Your task to perform on an android device: Open Youtube and go to "Your channel" Image 0: 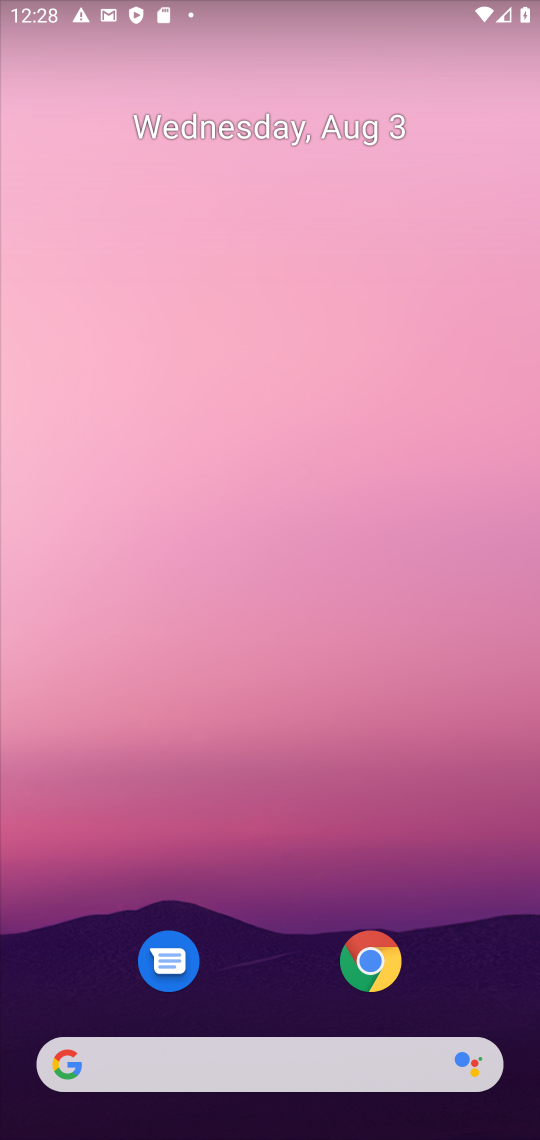
Step 0: drag from (302, 680) to (281, 84)
Your task to perform on an android device: Open Youtube and go to "Your channel" Image 1: 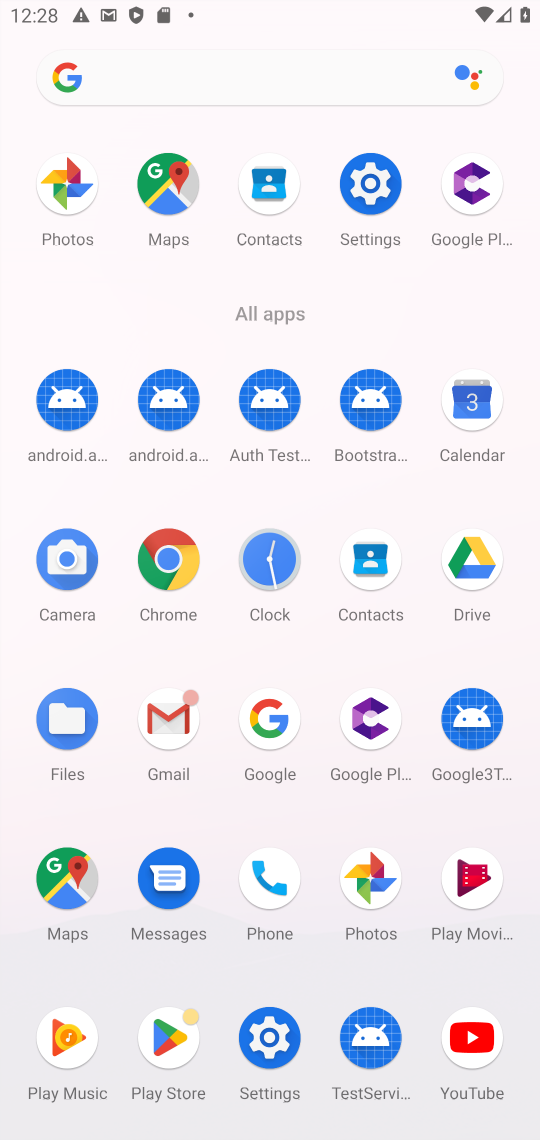
Step 1: click (472, 1037)
Your task to perform on an android device: Open Youtube and go to "Your channel" Image 2: 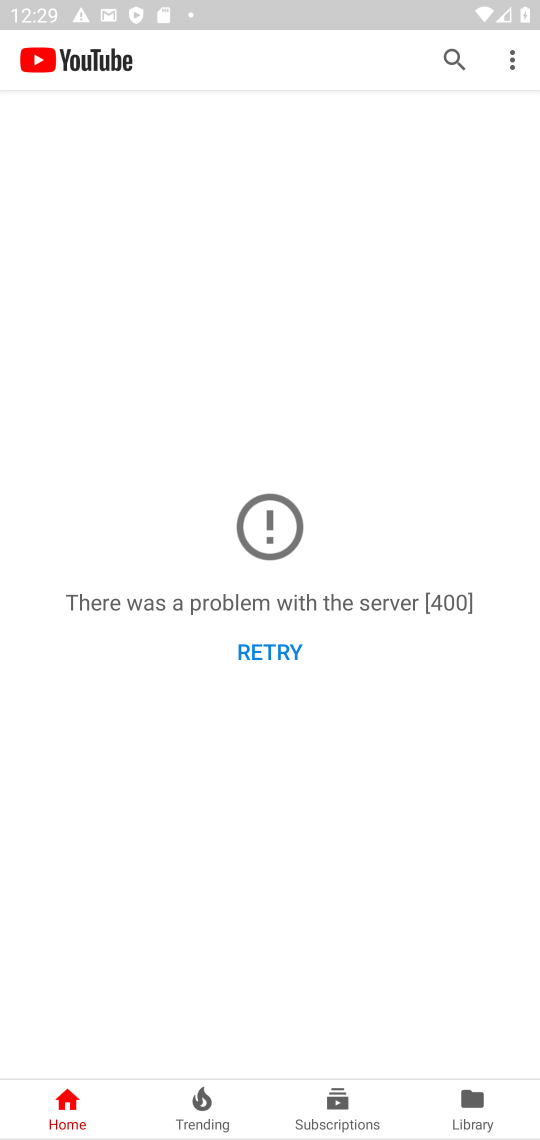
Step 2: click (241, 657)
Your task to perform on an android device: Open Youtube and go to "Your channel" Image 3: 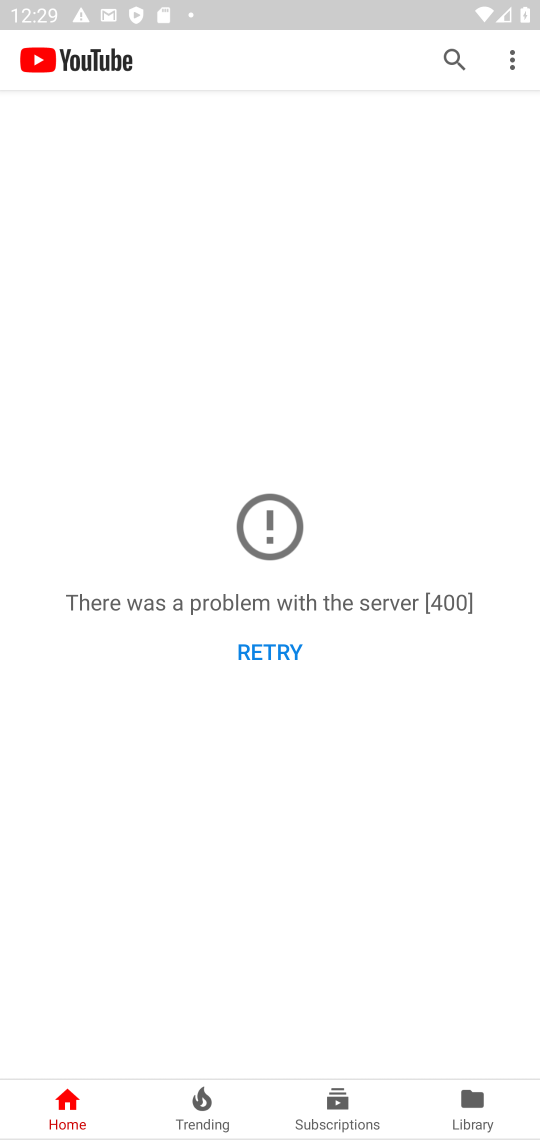
Step 3: task complete